Your task to perform on an android device: Go to accessibility settings Image 0: 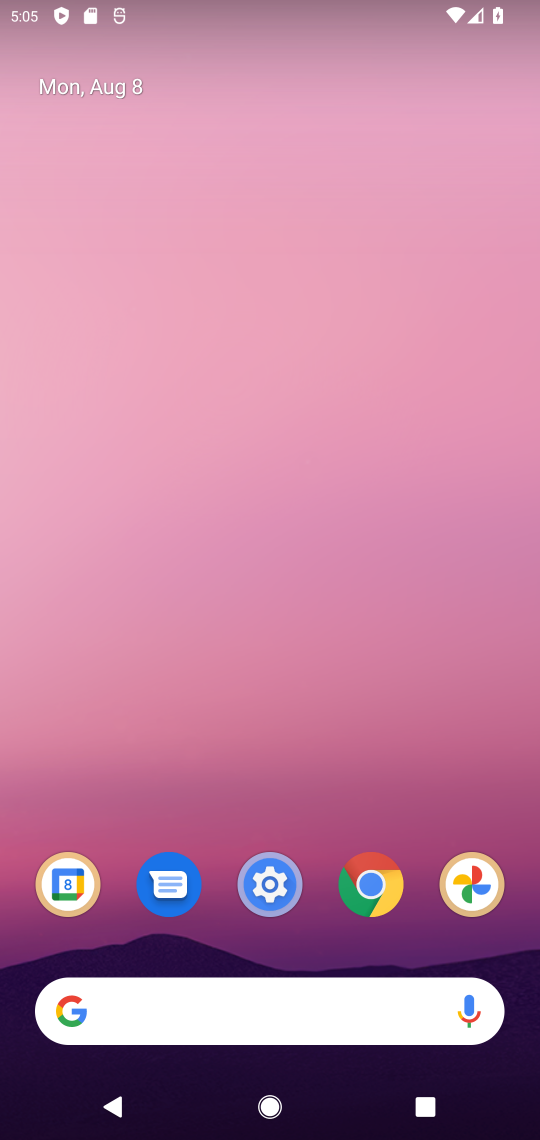
Step 0: press home button
Your task to perform on an android device: Go to accessibility settings Image 1: 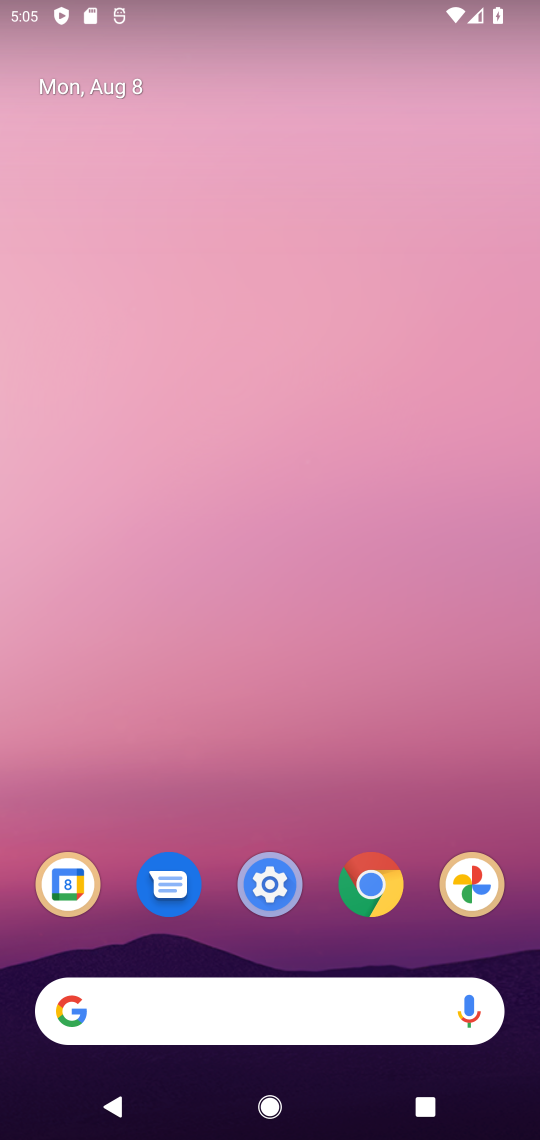
Step 1: drag from (527, 959) to (475, 276)
Your task to perform on an android device: Go to accessibility settings Image 2: 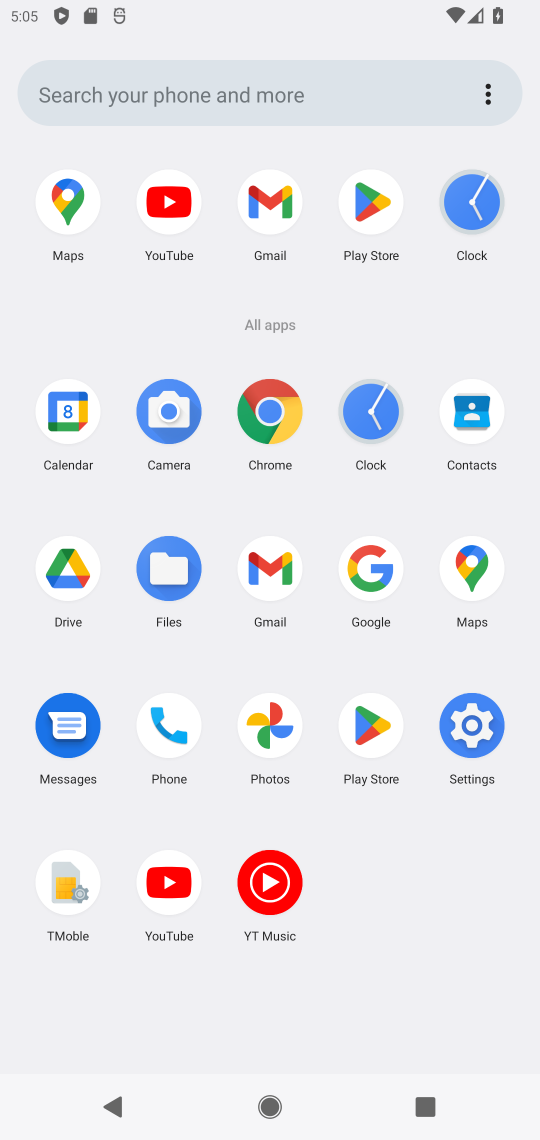
Step 2: click (480, 736)
Your task to perform on an android device: Go to accessibility settings Image 3: 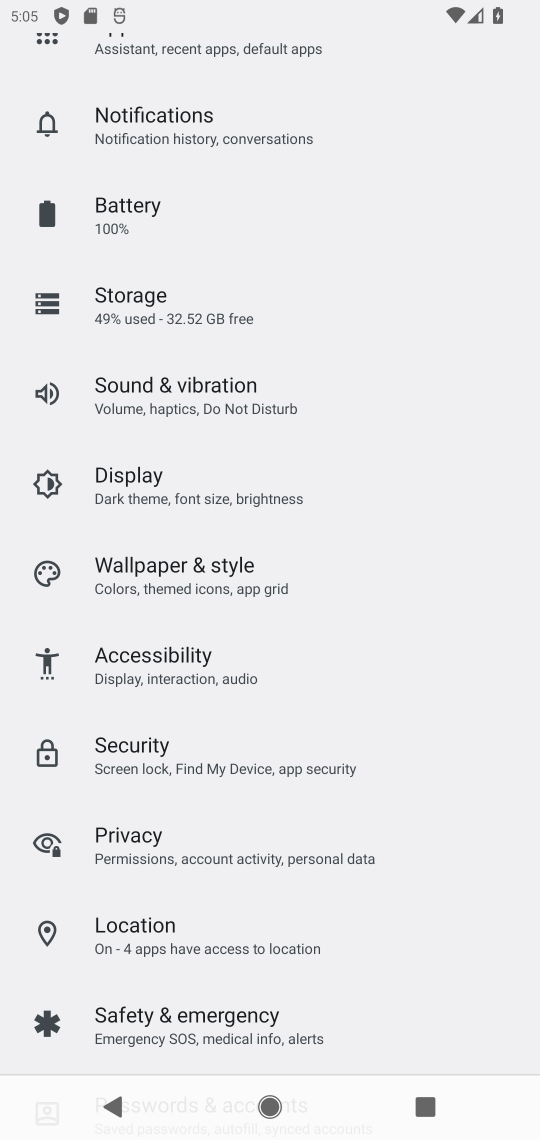
Step 3: click (228, 676)
Your task to perform on an android device: Go to accessibility settings Image 4: 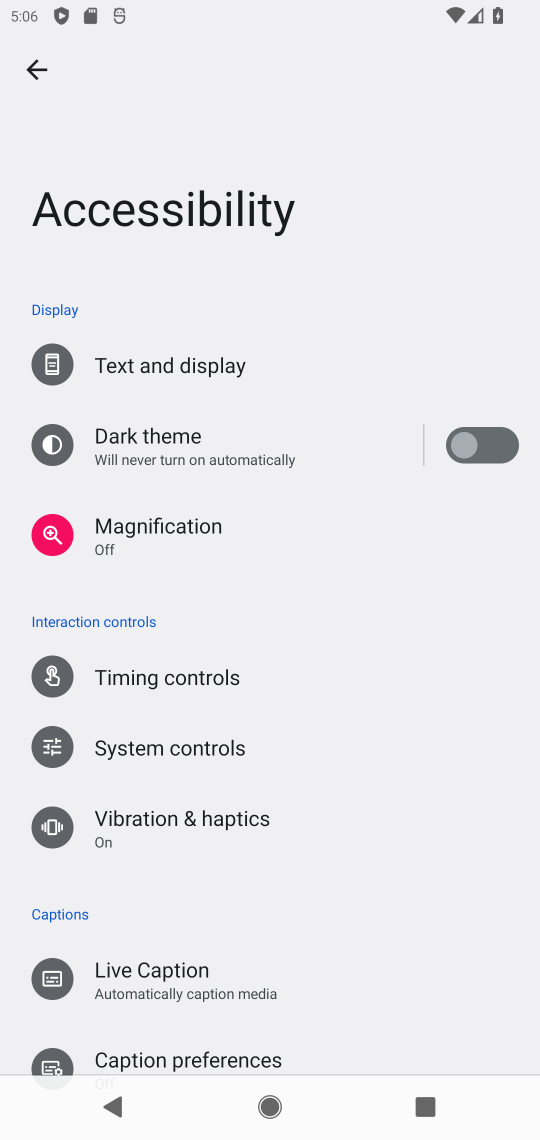
Step 4: task complete